Your task to perform on an android device: see tabs open on other devices in the chrome app Image 0: 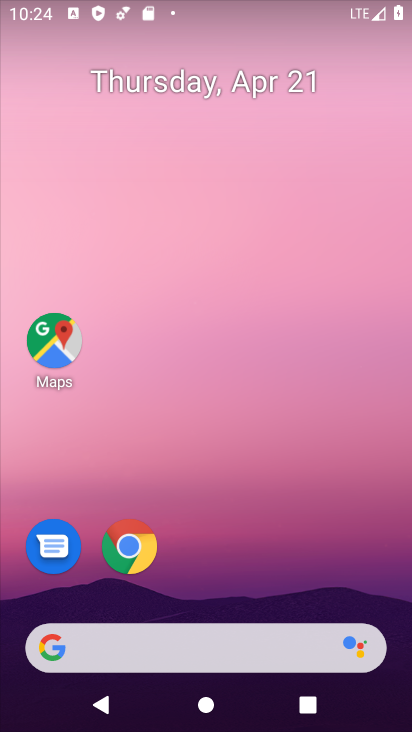
Step 0: click (131, 549)
Your task to perform on an android device: see tabs open on other devices in the chrome app Image 1: 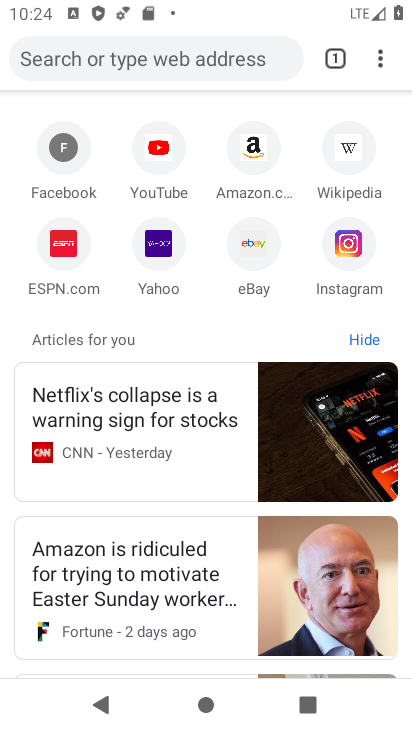
Step 1: click (378, 63)
Your task to perform on an android device: see tabs open on other devices in the chrome app Image 2: 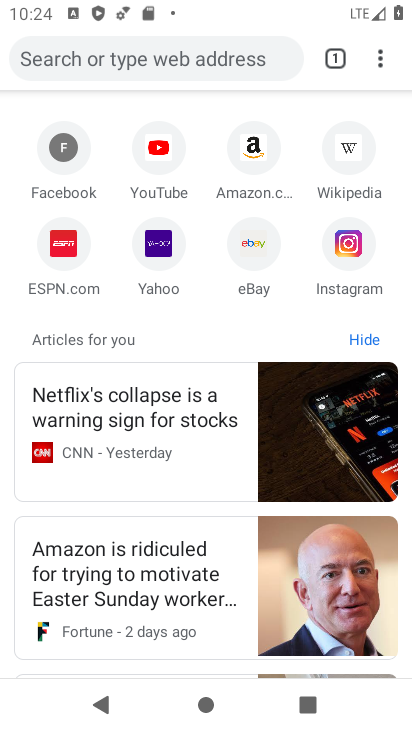
Step 2: click (378, 64)
Your task to perform on an android device: see tabs open on other devices in the chrome app Image 3: 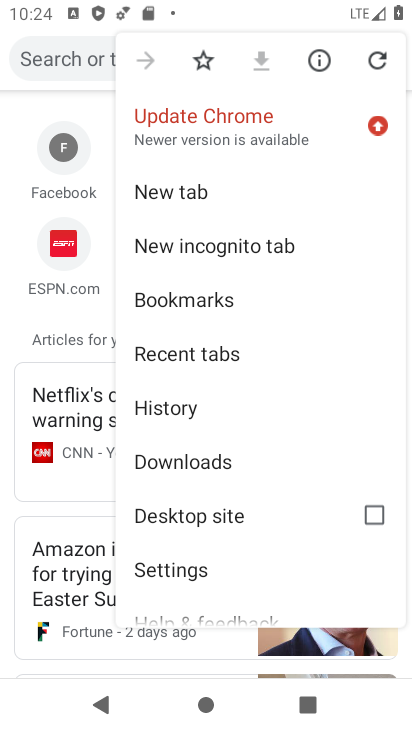
Step 3: click (185, 354)
Your task to perform on an android device: see tabs open on other devices in the chrome app Image 4: 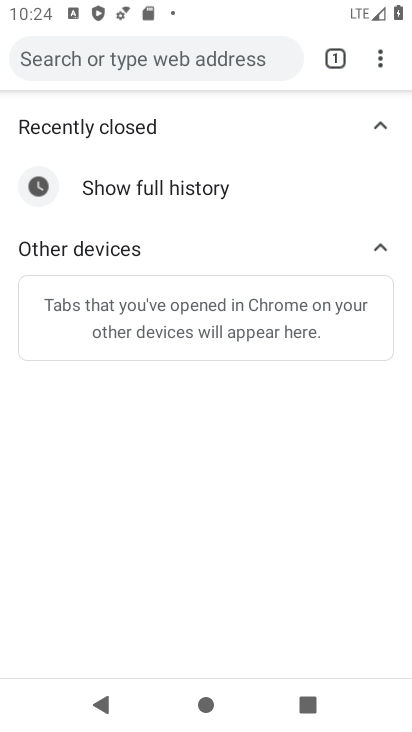
Step 4: task complete